Your task to perform on an android device: Search for Italian restaurants on Maps Image 0: 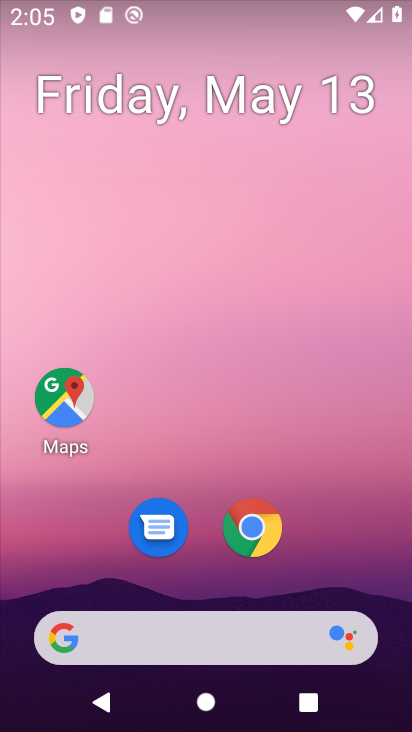
Step 0: click (53, 420)
Your task to perform on an android device: Search for Italian restaurants on Maps Image 1: 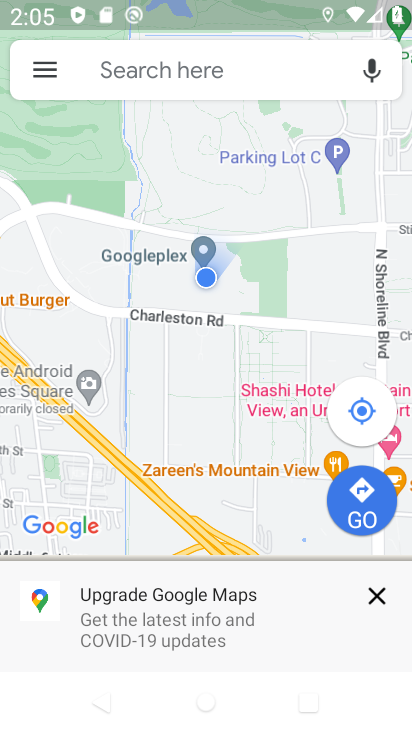
Step 1: click (225, 52)
Your task to perform on an android device: Search for Italian restaurants on Maps Image 2: 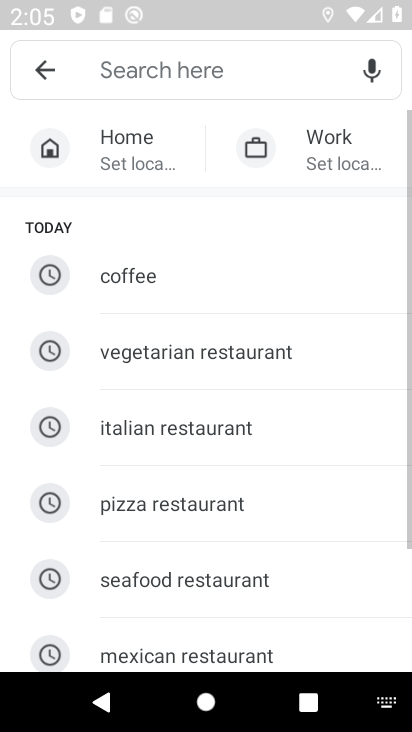
Step 2: click (213, 428)
Your task to perform on an android device: Search for Italian restaurants on Maps Image 3: 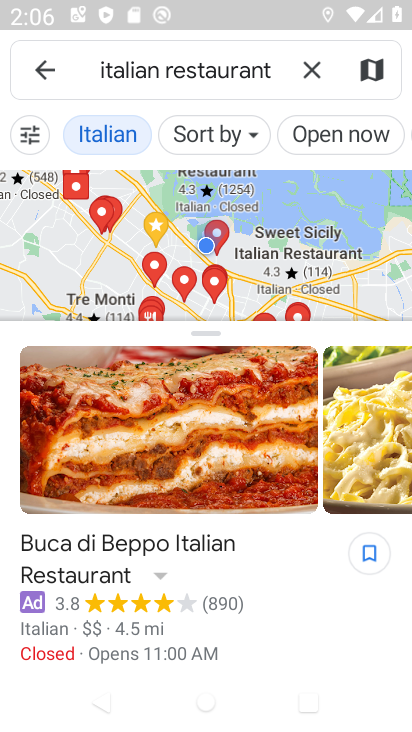
Step 3: task complete